Your task to perform on an android device: Go to privacy settings Image 0: 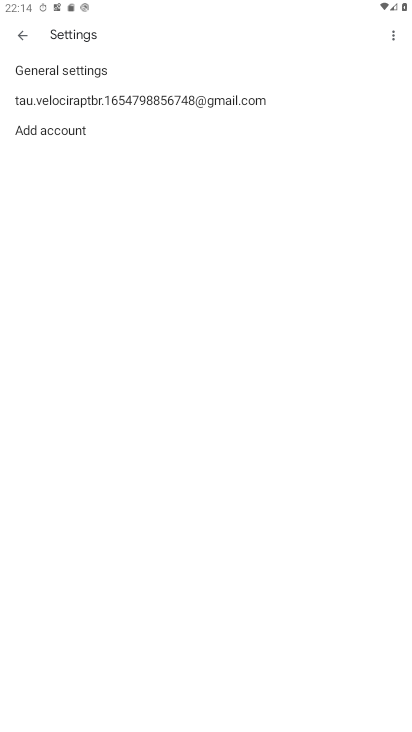
Step 0: press home button
Your task to perform on an android device: Go to privacy settings Image 1: 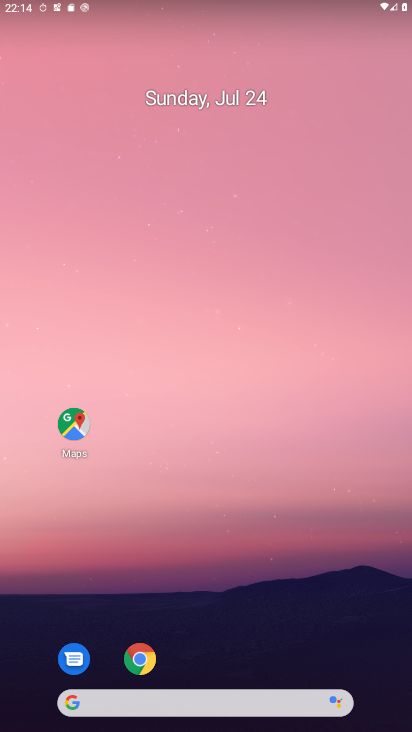
Step 1: drag from (205, 725) to (179, 161)
Your task to perform on an android device: Go to privacy settings Image 2: 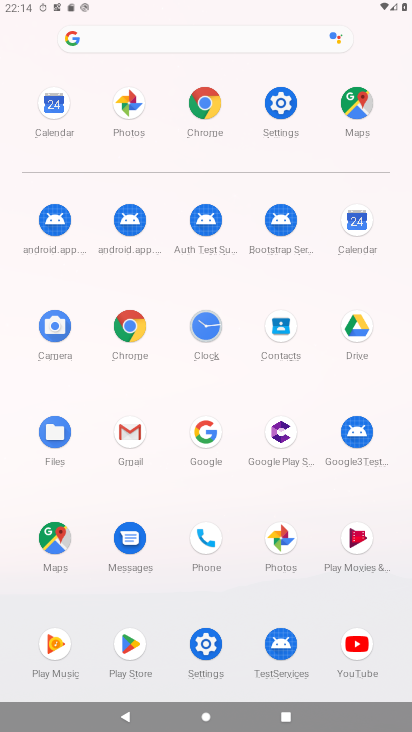
Step 2: click (285, 98)
Your task to perform on an android device: Go to privacy settings Image 3: 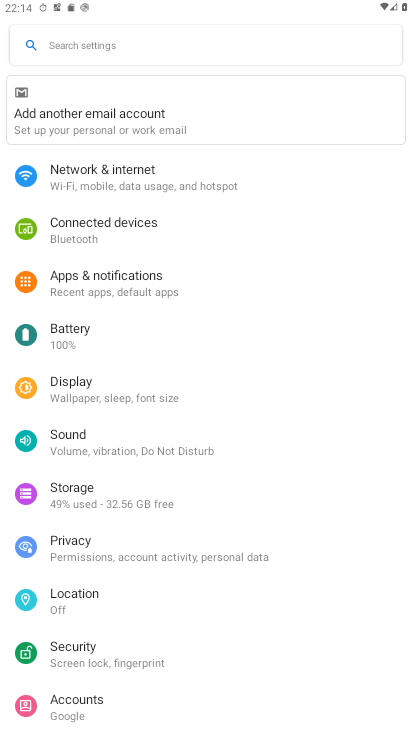
Step 3: click (75, 542)
Your task to perform on an android device: Go to privacy settings Image 4: 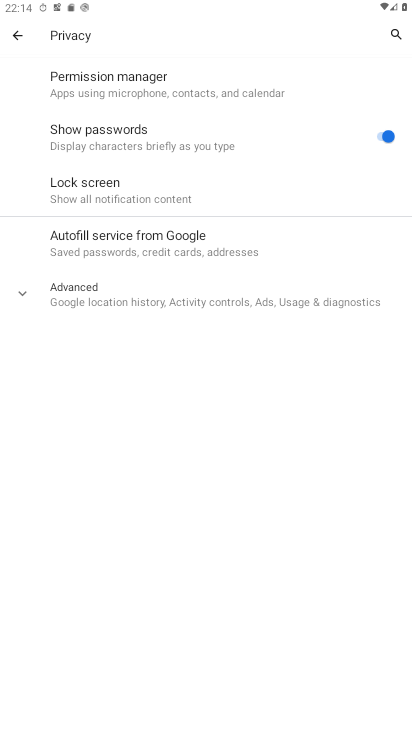
Step 4: task complete